Your task to perform on an android device: Search for seafood restaurants on Google Maps Image 0: 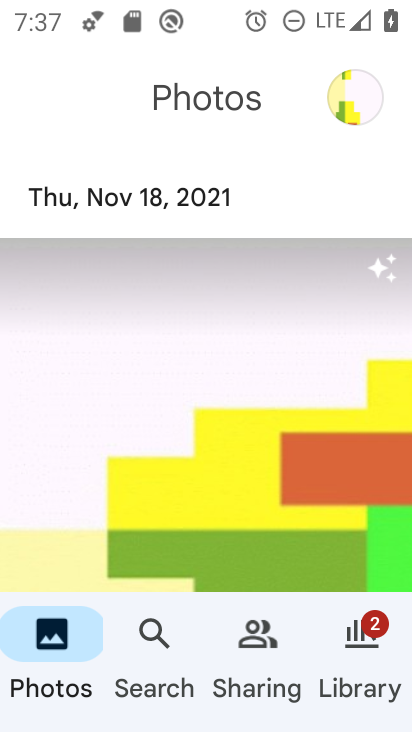
Step 0: press home button
Your task to perform on an android device: Search for seafood restaurants on Google Maps Image 1: 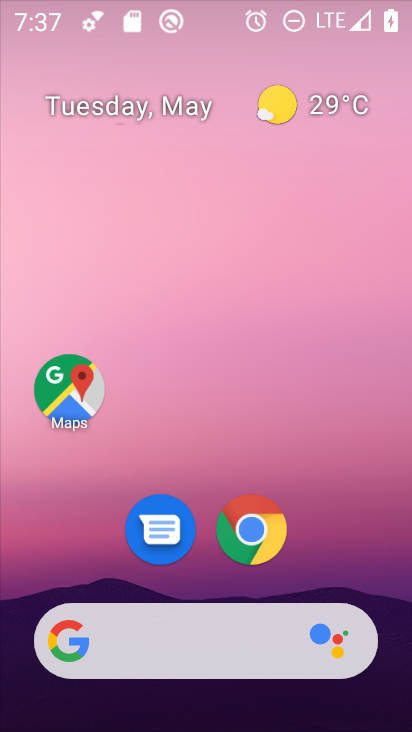
Step 1: drag from (385, 615) to (341, 71)
Your task to perform on an android device: Search for seafood restaurants on Google Maps Image 2: 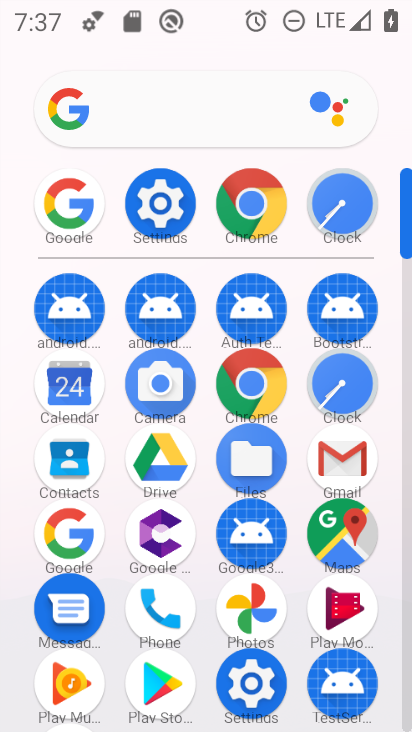
Step 2: click (327, 546)
Your task to perform on an android device: Search for seafood restaurants on Google Maps Image 3: 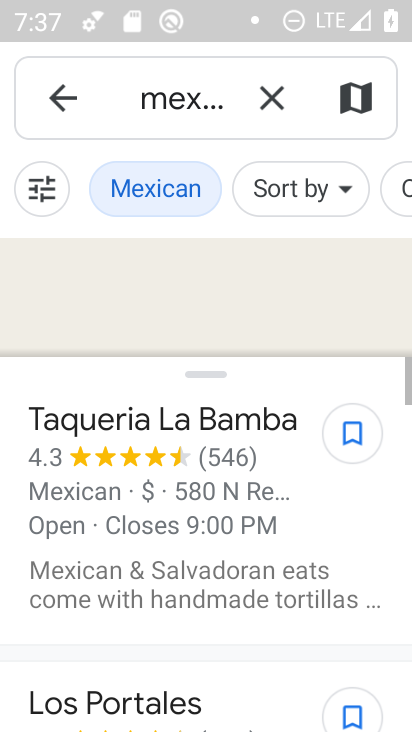
Step 3: click (268, 90)
Your task to perform on an android device: Search for seafood restaurants on Google Maps Image 4: 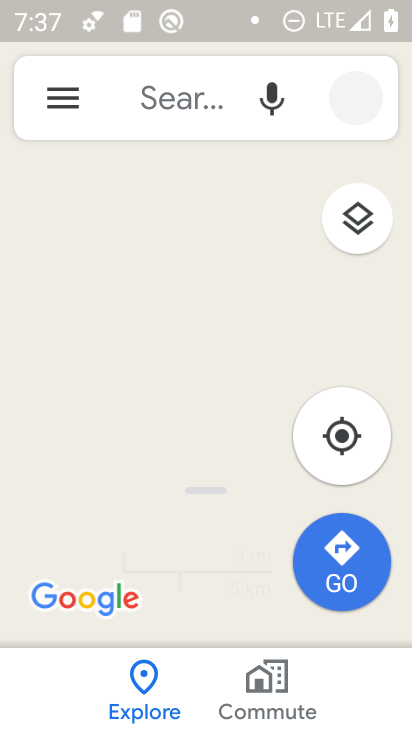
Step 4: click (191, 111)
Your task to perform on an android device: Search for seafood restaurants on Google Maps Image 5: 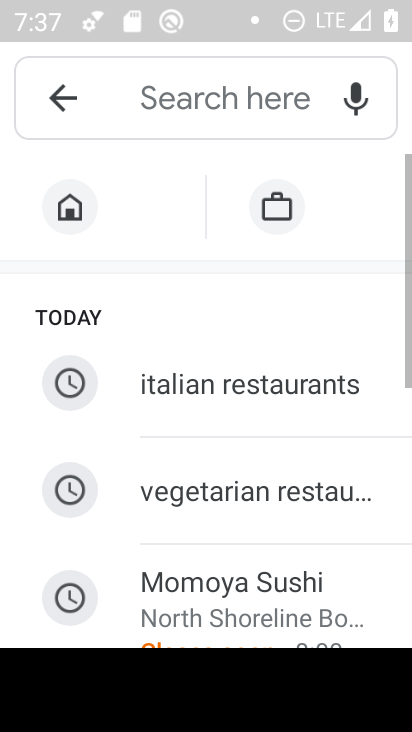
Step 5: drag from (257, 559) to (161, 144)
Your task to perform on an android device: Search for seafood restaurants on Google Maps Image 6: 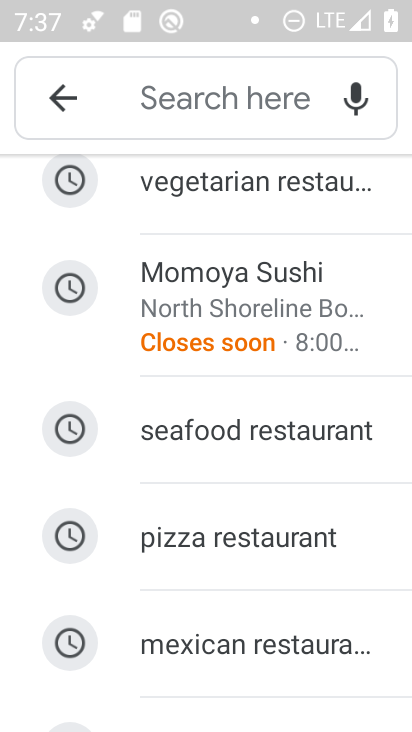
Step 6: click (193, 433)
Your task to perform on an android device: Search for seafood restaurants on Google Maps Image 7: 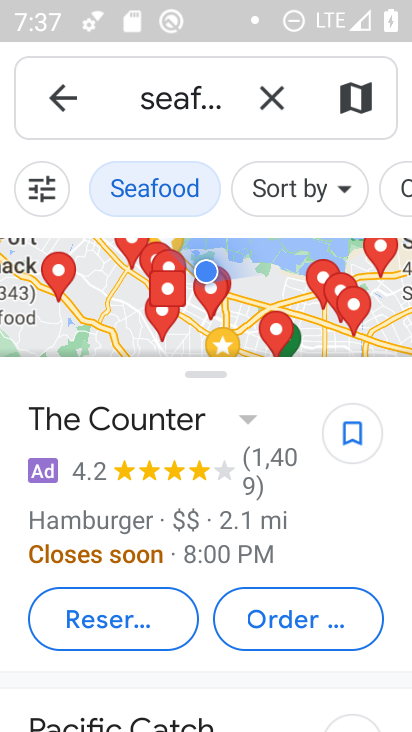
Step 7: task complete